Your task to perform on an android device: Add "usb-c" to the cart on newegg.com, then select checkout. Image 0: 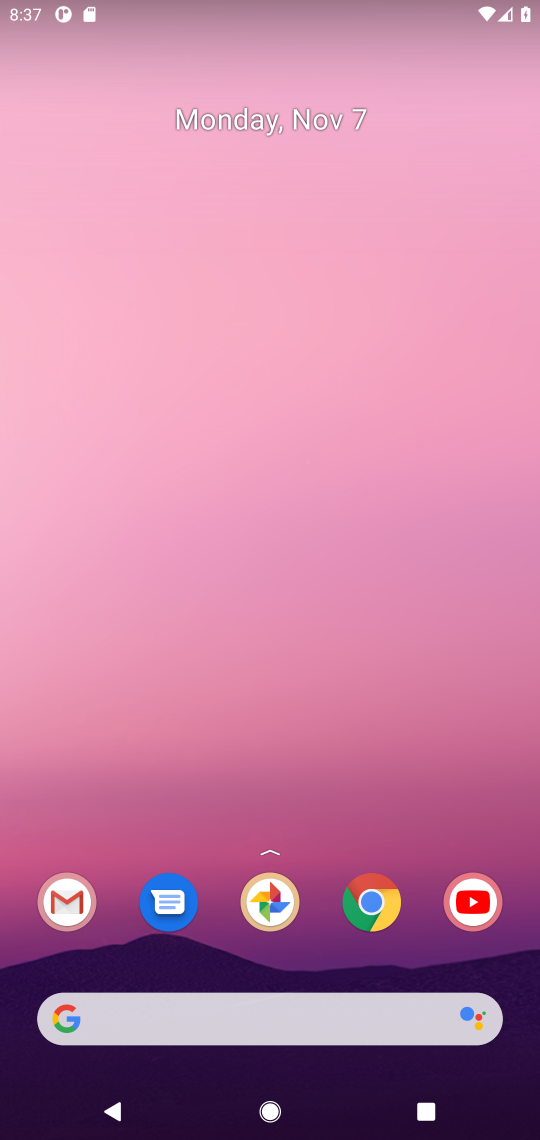
Step 0: click (374, 921)
Your task to perform on an android device: Add "usb-c" to the cart on newegg.com, then select checkout. Image 1: 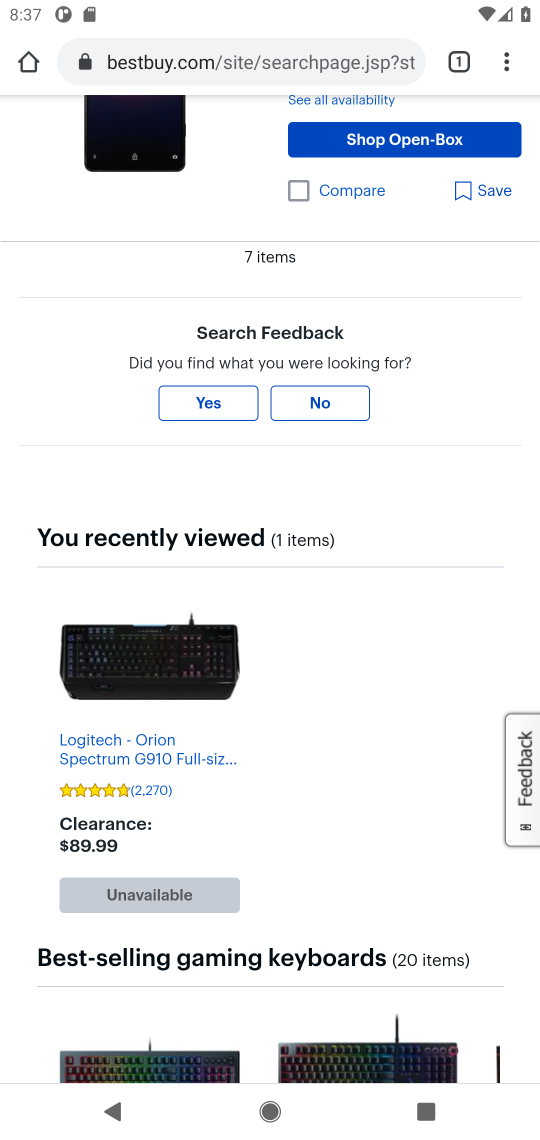
Step 1: click (229, 59)
Your task to perform on an android device: Add "usb-c" to the cart on newegg.com, then select checkout. Image 2: 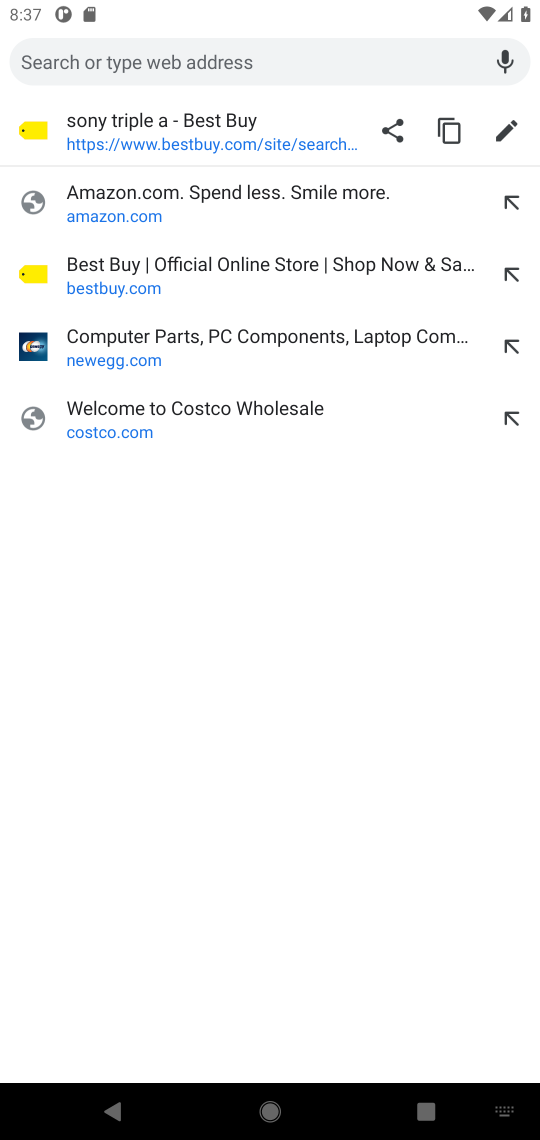
Step 2: click (99, 349)
Your task to perform on an android device: Add "usb-c" to the cart on newegg.com, then select checkout. Image 3: 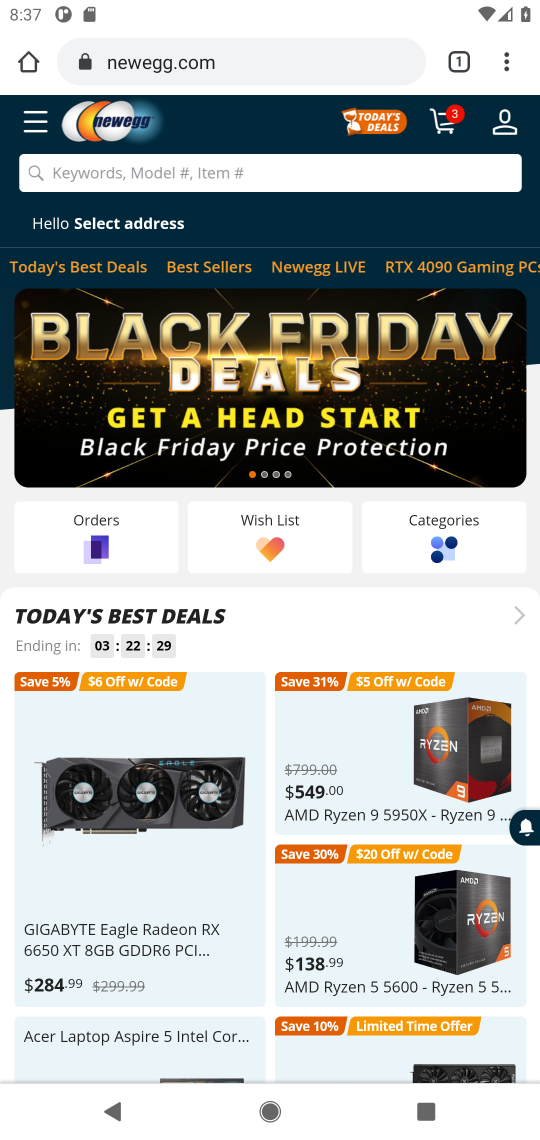
Step 3: click (115, 182)
Your task to perform on an android device: Add "usb-c" to the cart on newegg.com, then select checkout. Image 4: 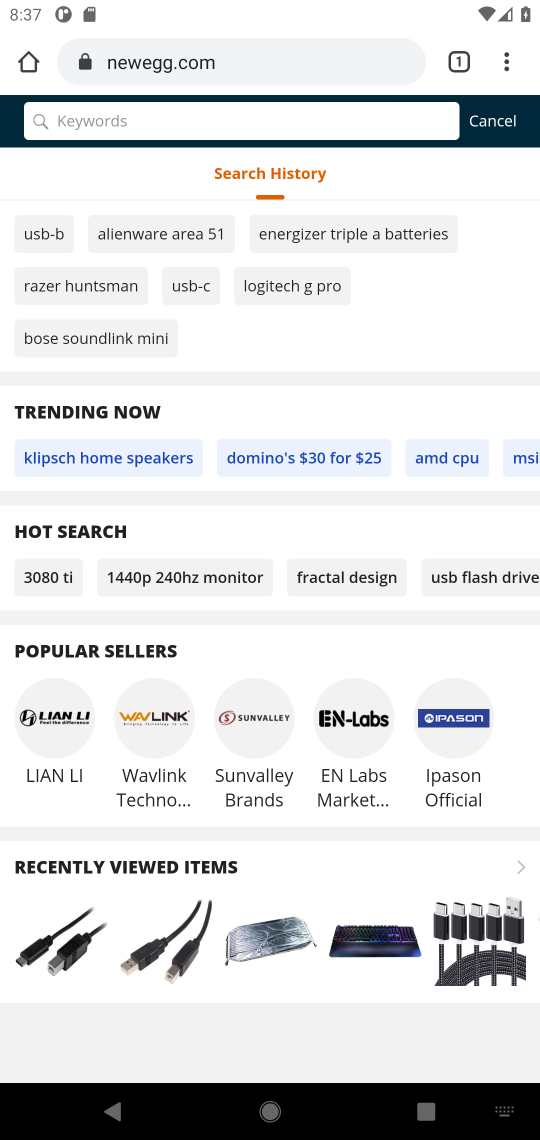
Step 4: type "usb-c"
Your task to perform on an android device: Add "usb-c" to the cart on newegg.com, then select checkout. Image 5: 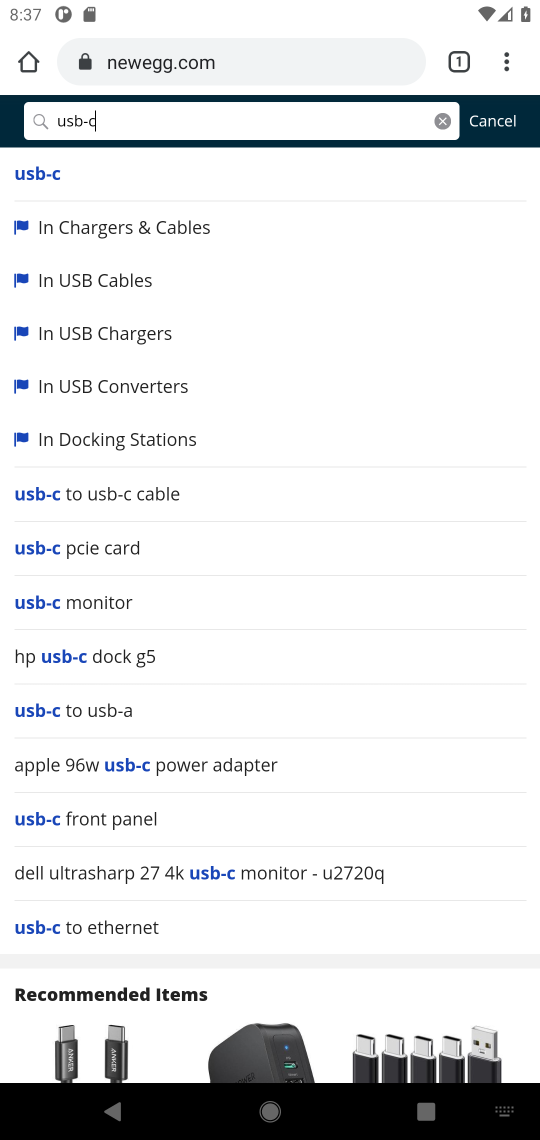
Step 5: click (32, 173)
Your task to perform on an android device: Add "usb-c" to the cart on newegg.com, then select checkout. Image 6: 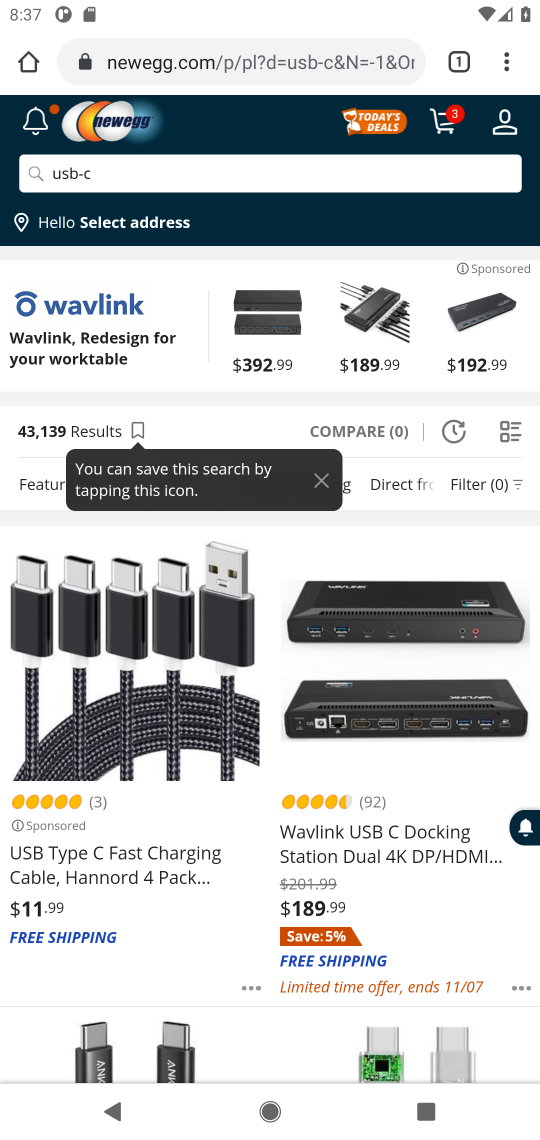
Step 6: click (138, 723)
Your task to perform on an android device: Add "usb-c" to the cart on newegg.com, then select checkout. Image 7: 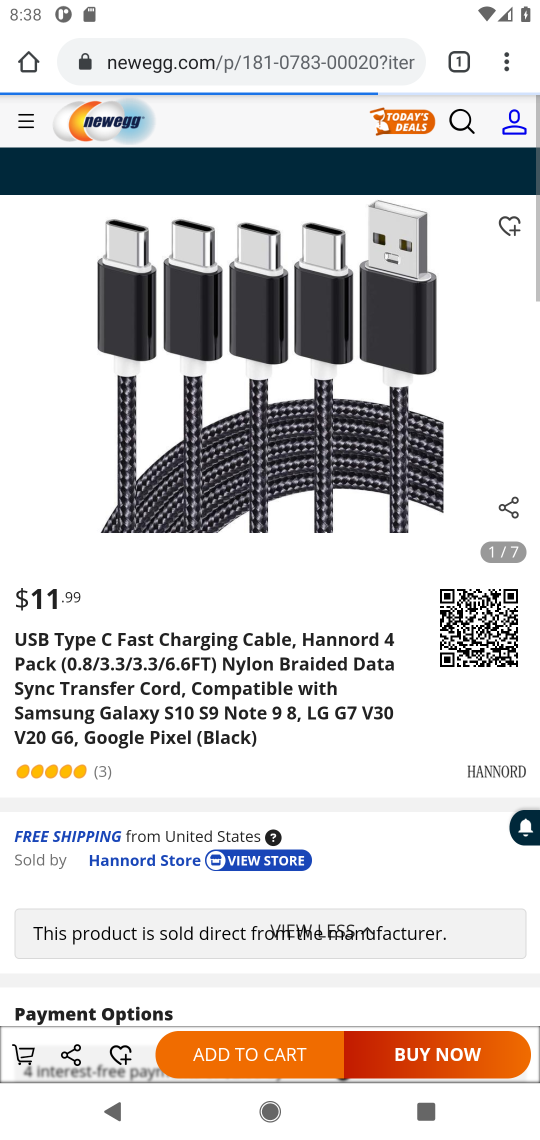
Step 7: click (253, 1058)
Your task to perform on an android device: Add "usb-c" to the cart on newegg.com, then select checkout. Image 8: 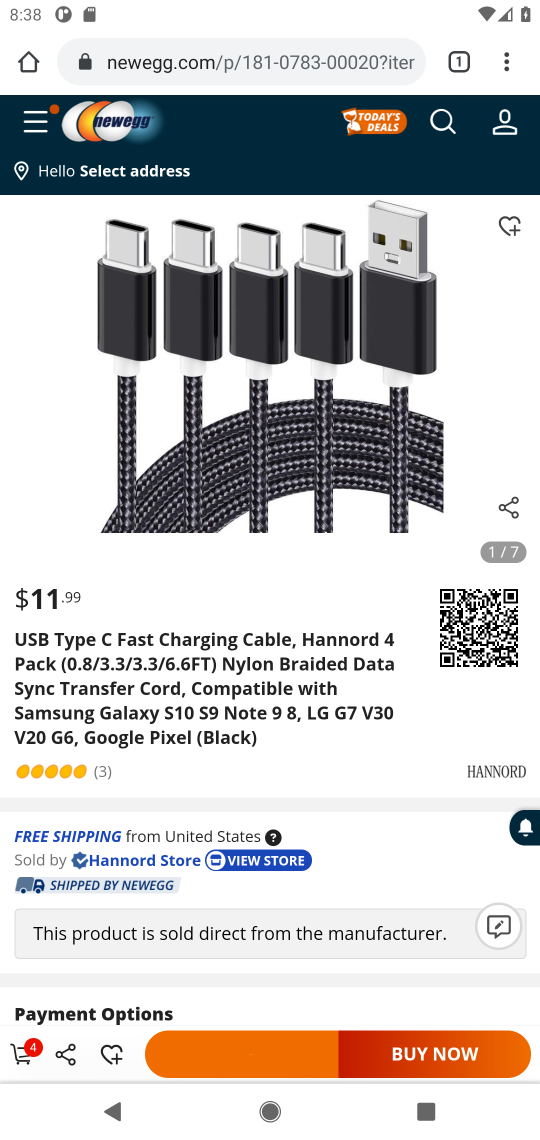
Step 8: click (33, 1061)
Your task to perform on an android device: Add "usb-c" to the cart on newegg.com, then select checkout. Image 9: 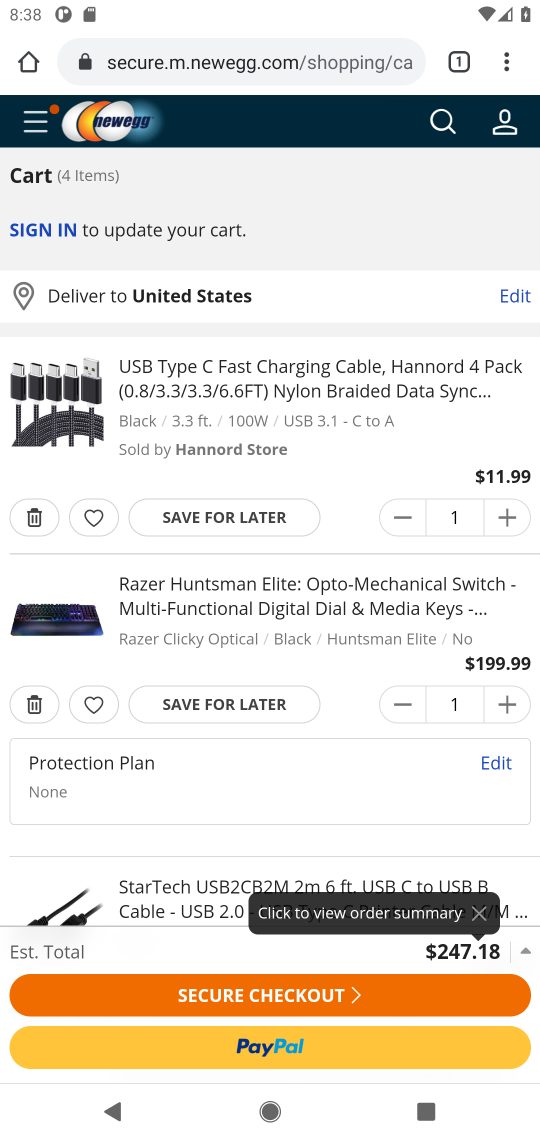
Step 9: click (240, 992)
Your task to perform on an android device: Add "usb-c" to the cart on newegg.com, then select checkout. Image 10: 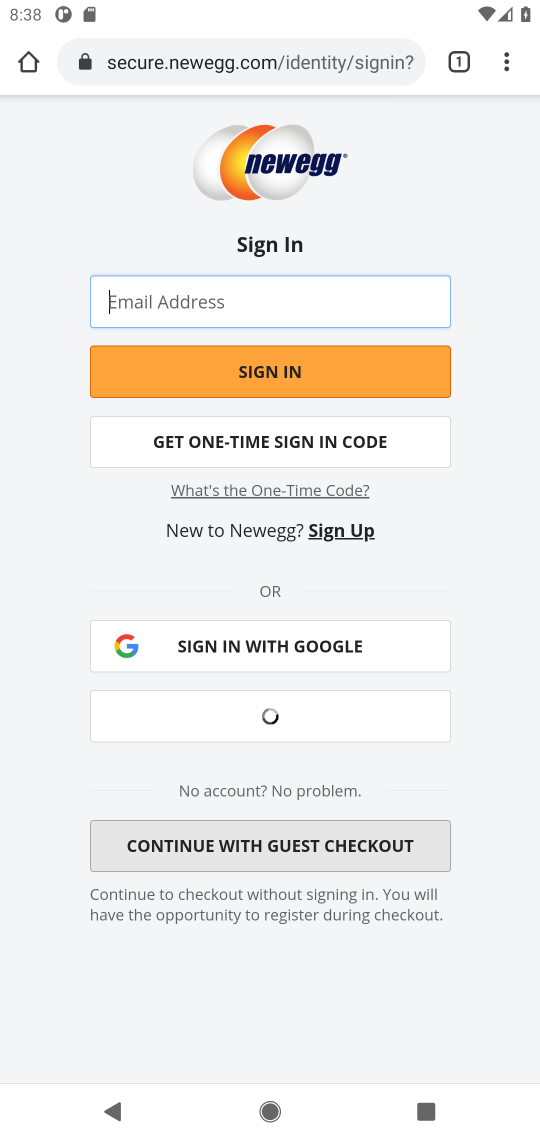
Step 10: task complete